Your task to perform on an android device: Open Youtube and go to the subscriptions tab Image 0: 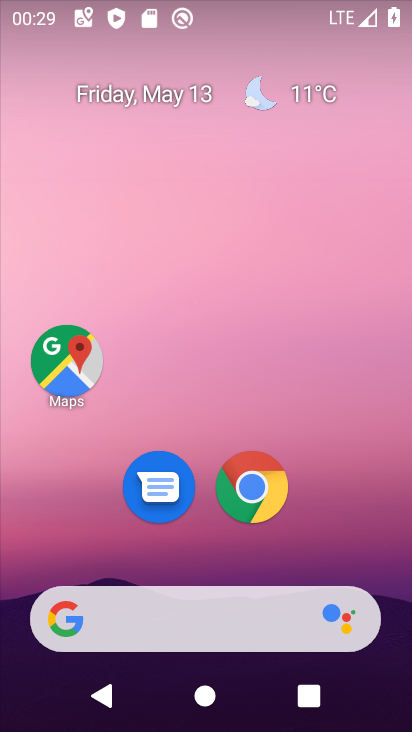
Step 0: drag from (226, 544) to (251, 131)
Your task to perform on an android device: Open Youtube and go to the subscriptions tab Image 1: 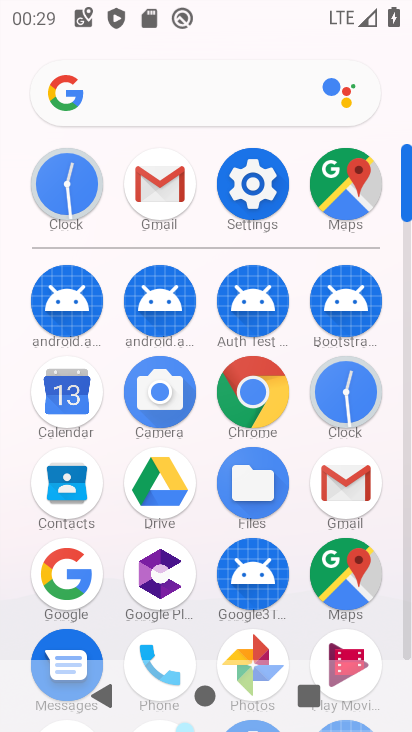
Step 1: drag from (202, 634) to (209, 163)
Your task to perform on an android device: Open Youtube and go to the subscriptions tab Image 2: 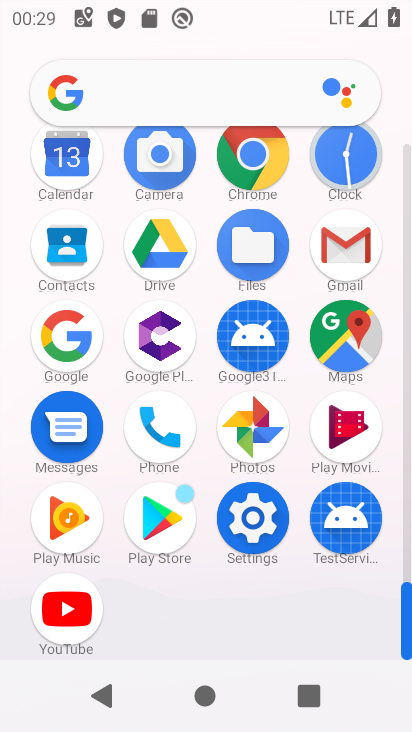
Step 2: click (69, 605)
Your task to perform on an android device: Open Youtube and go to the subscriptions tab Image 3: 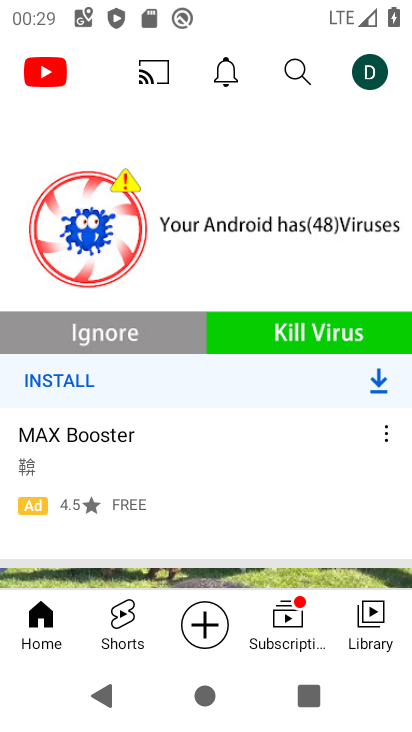
Step 3: click (295, 641)
Your task to perform on an android device: Open Youtube and go to the subscriptions tab Image 4: 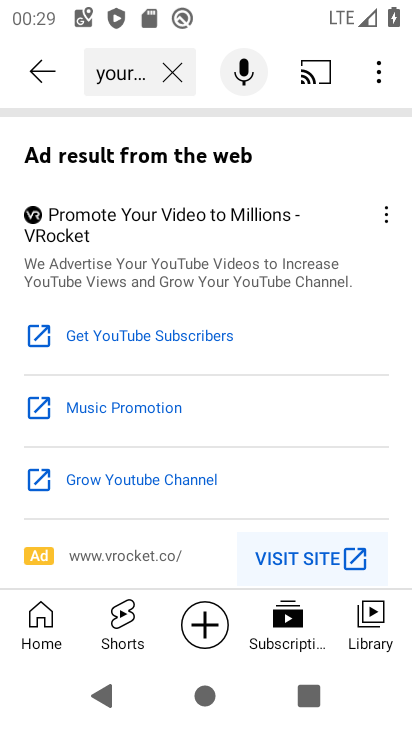
Step 4: task complete